Your task to perform on an android device: Add "asus zenbook" to the cart on target.com, then select checkout. Image 0: 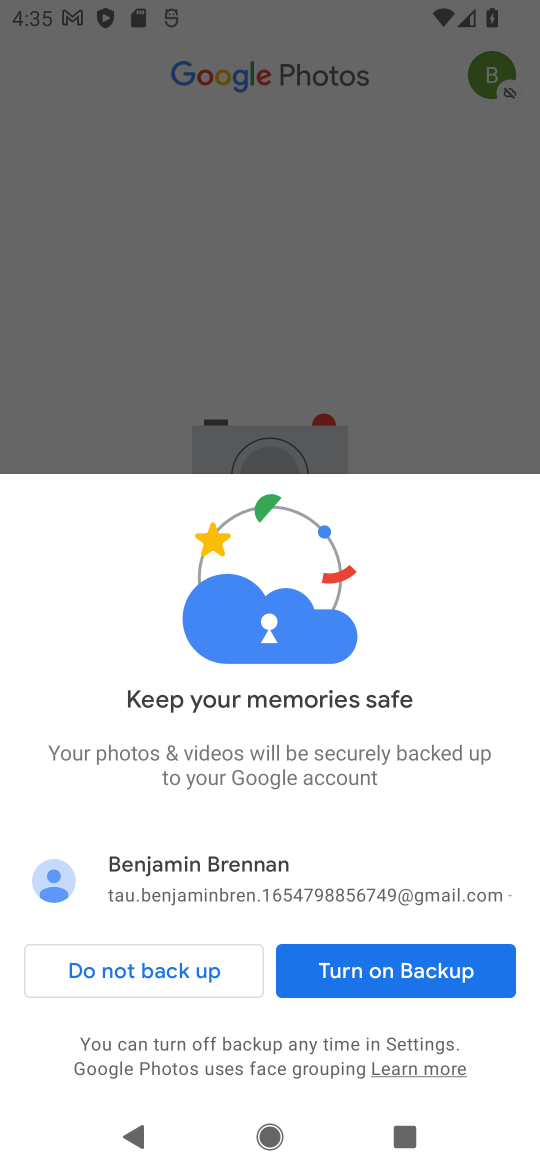
Step 0: press home button
Your task to perform on an android device: Add "asus zenbook" to the cart on target.com, then select checkout. Image 1: 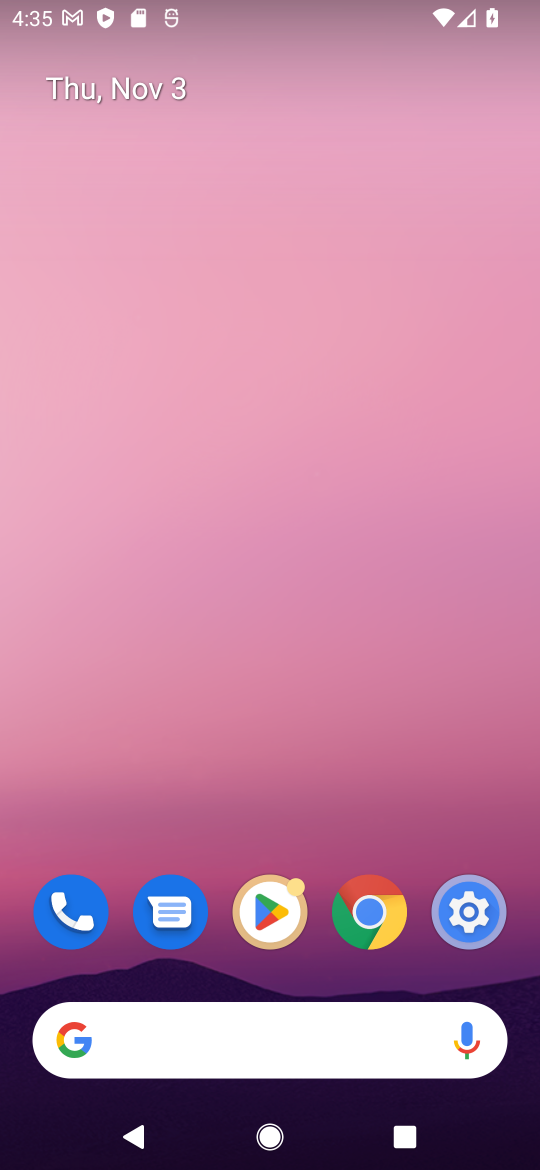
Step 1: click (375, 920)
Your task to perform on an android device: Add "asus zenbook" to the cart on target.com, then select checkout. Image 2: 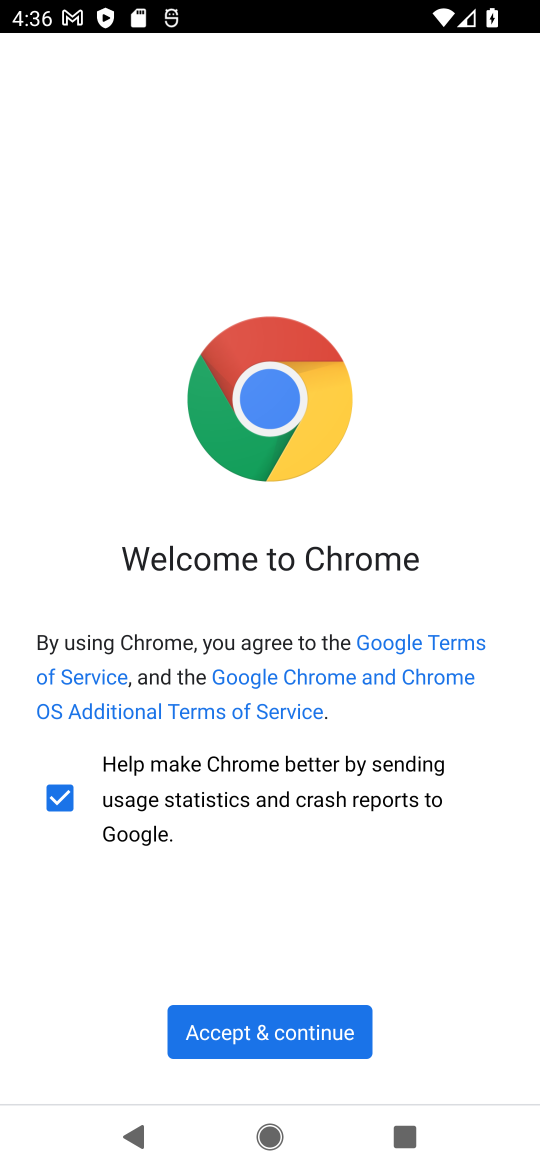
Step 2: click (213, 1037)
Your task to perform on an android device: Add "asus zenbook" to the cart on target.com, then select checkout. Image 3: 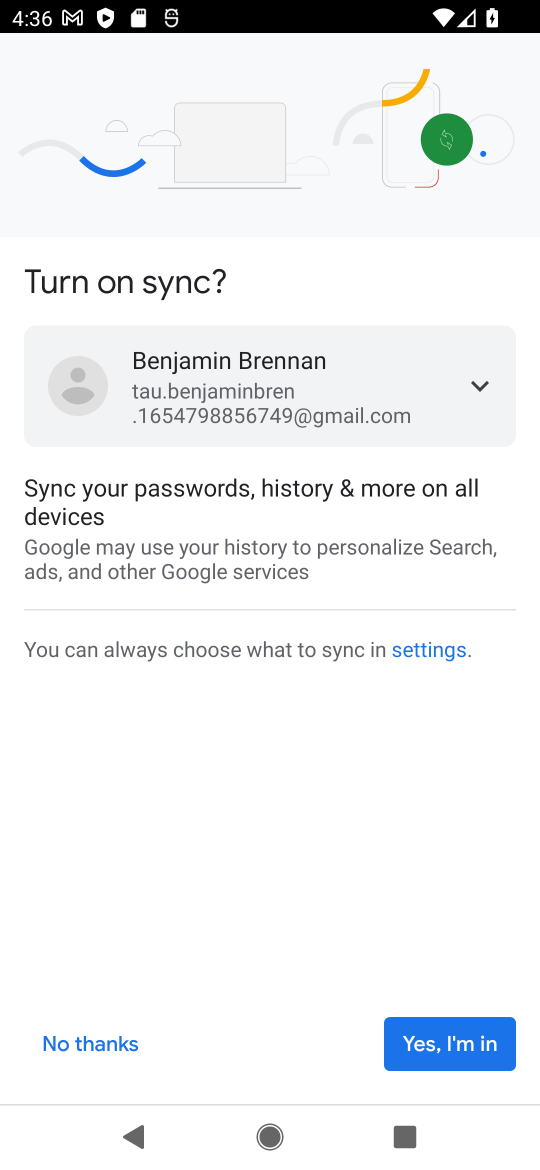
Step 3: click (431, 1044)
Your task to perform on an android device: Add "asus zenbook" to the cart on target.com, then select checkout. Image 4: 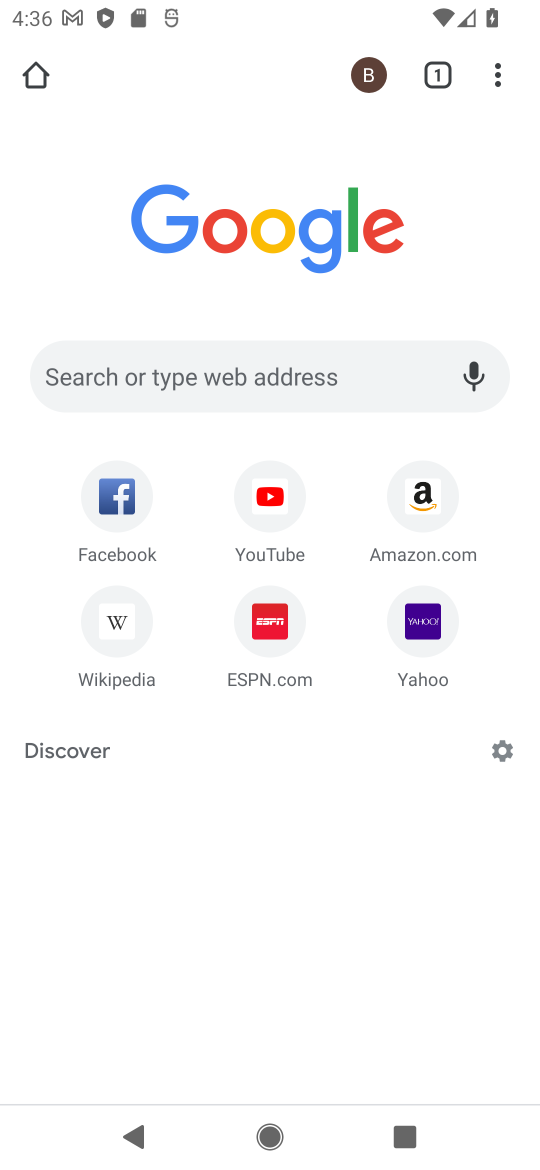
Step 4: click (188, 380)
Your task to perform on an android device: Add "asus zenbook" to the cart on target.com, then select checkout. Image 5: 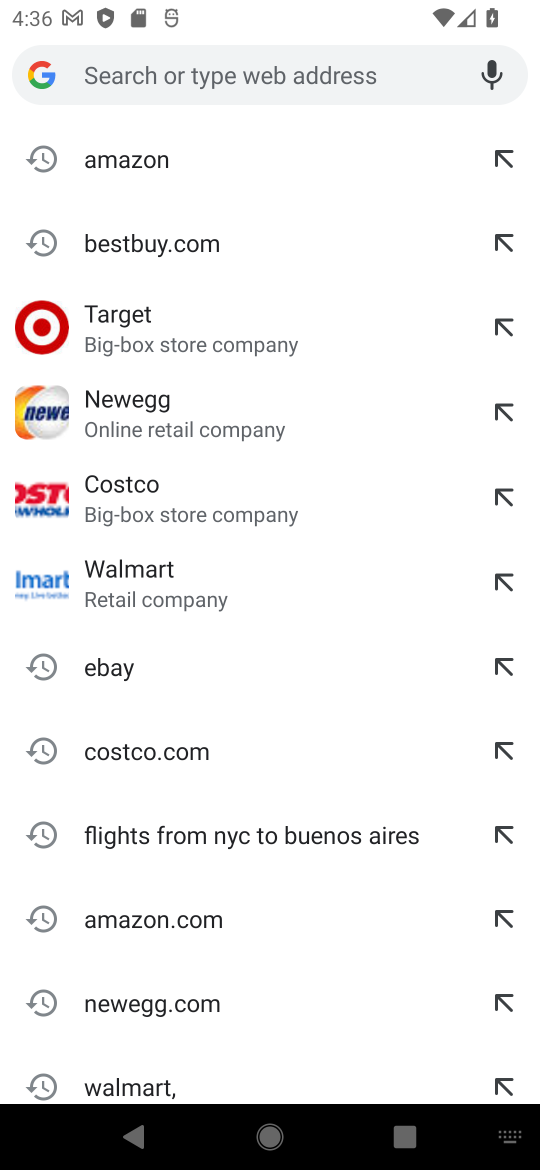
Step 5: type "target"
Your task to perform on an android device: Add "asus zenbook" to the cart on target.com, then select checkout. Image 6: 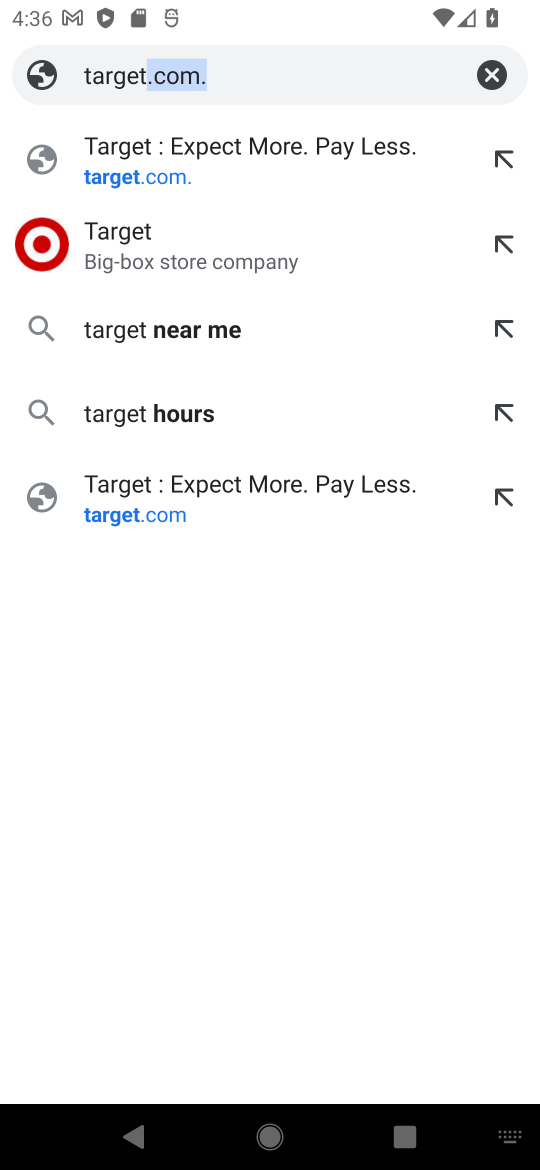
Step 6: click (146, 179)
Your task to perform on an android device: Add "asus zenbook" to the cart on target.com, then select checkout. Image 7: 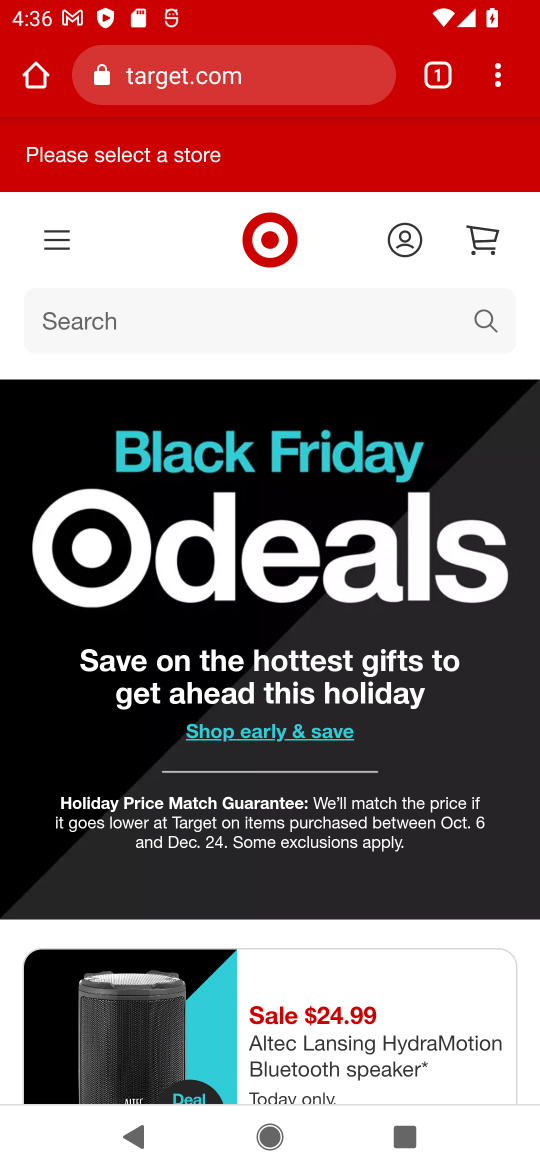
Step 7: click (486, 316)
Your task to perform on an android device: Add "asus zenbook" to the cart on target.com, then select checkout. Image 8: 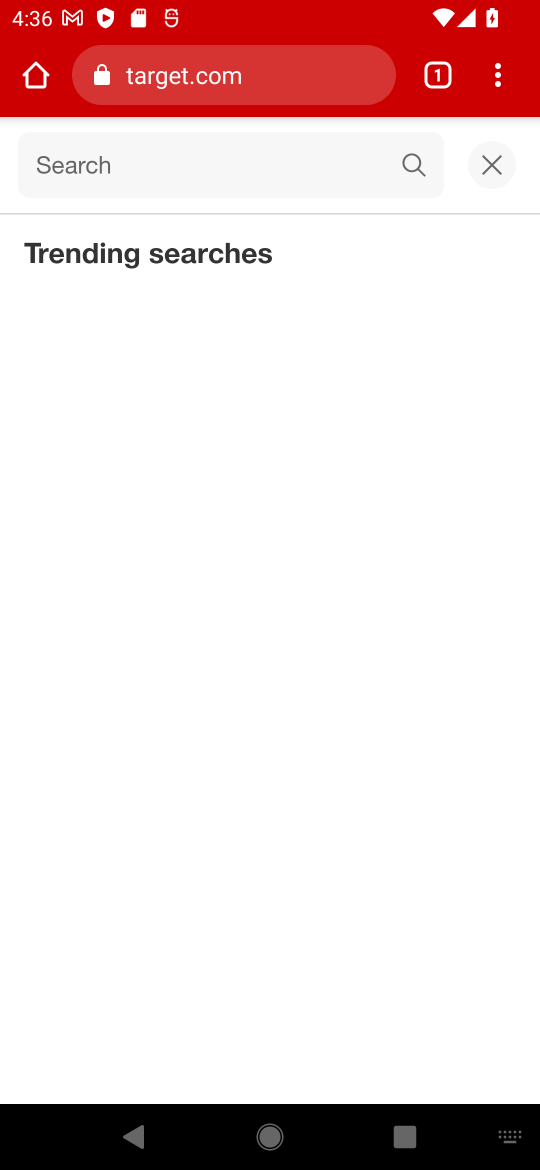
Step 8: click (115, 172)
Your task to perform on an android device: Add "asus zenbook" to the cart on target.com, then select checkout. Image 9: 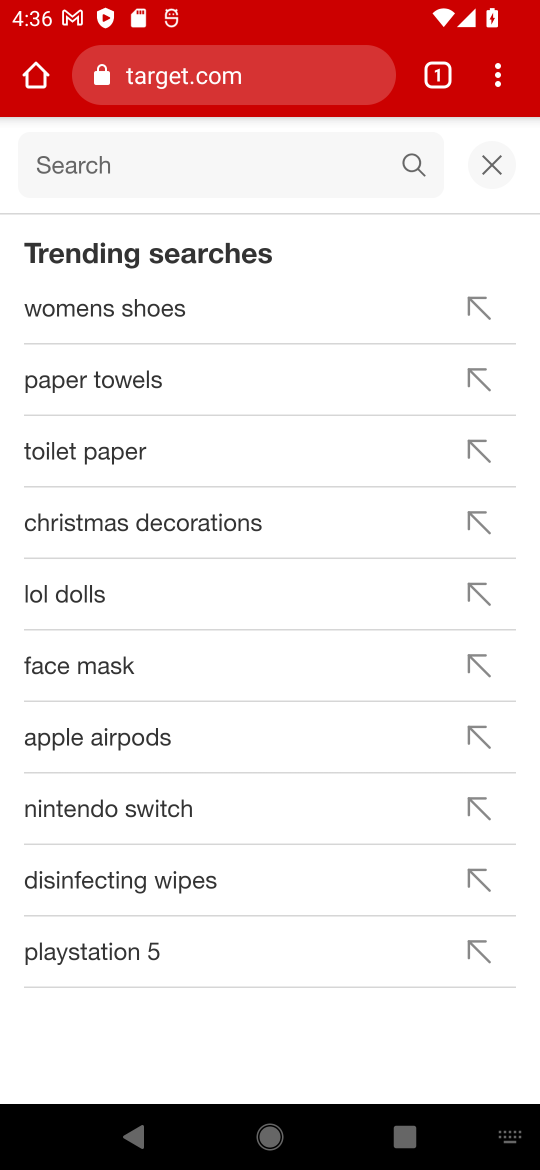
Step 9: type "asus zenbook"
Your task to perform on an android device: Add "asus zenbook" to the cart on target.com, then select checkout. Image 10: 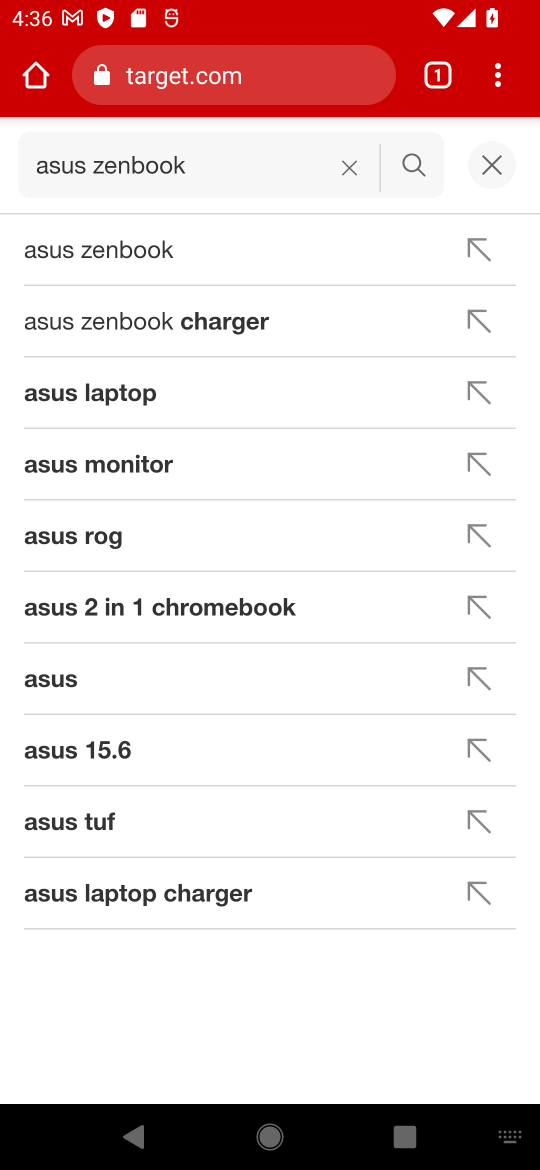
Step 10: click (81, 257)
Your task to perform on an android device: Add "asus zenbook" to the cart on target.com, then select checkout. Image 11: 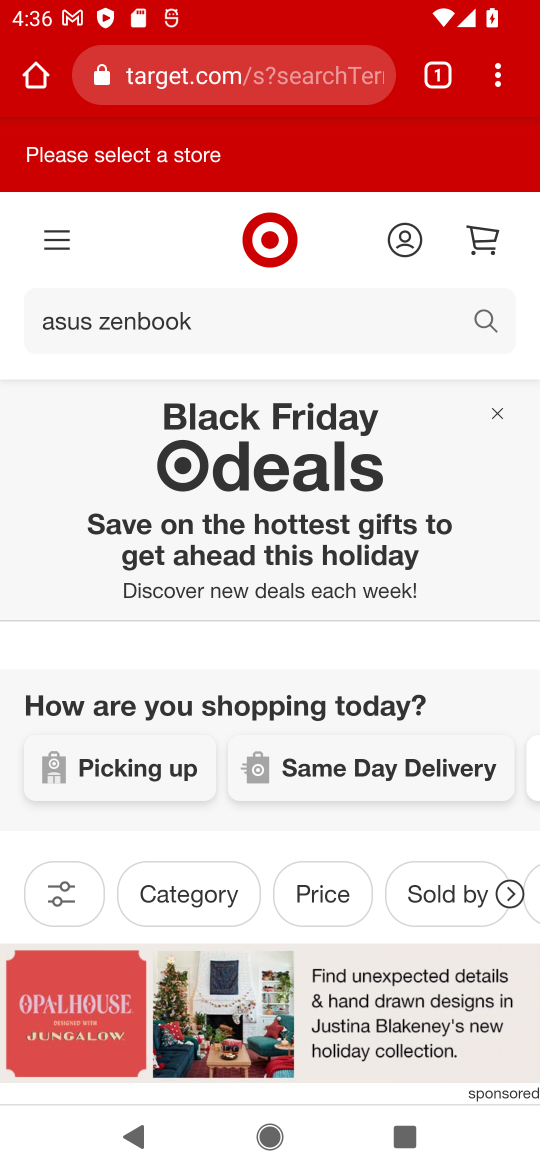
Step 11: drag from (298, 892) to (387, 279)
Your task to perform on an android device: Add "asus zenbook" to the cart on target.com, then select checkout. Image 12: 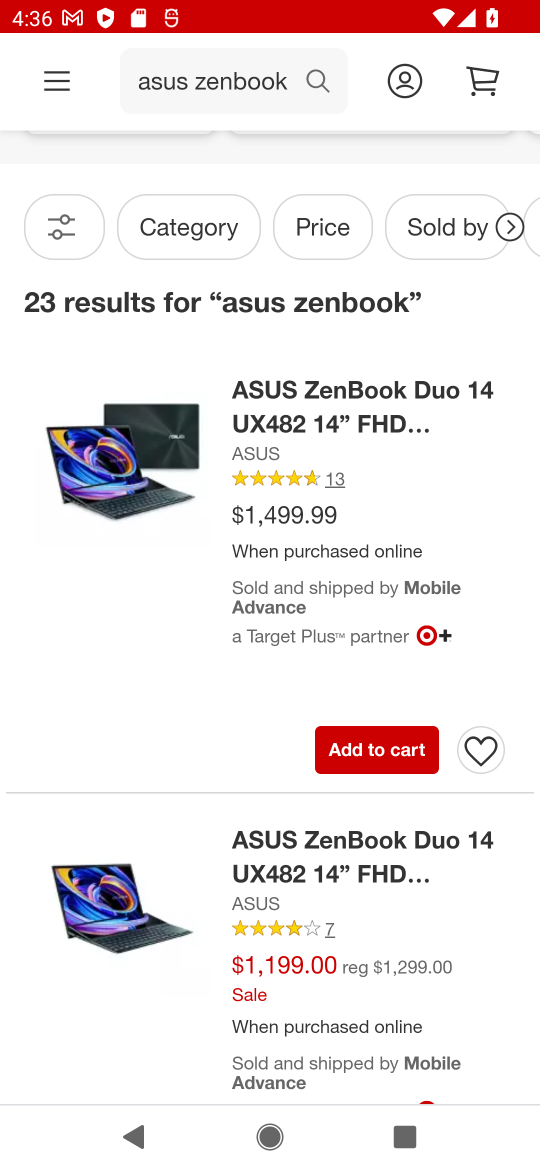
Step 12: click (362, 750)
Your task to perform on an android device: Add "asus zenbook" to the cart on target.com, then select checkout. Image 13: 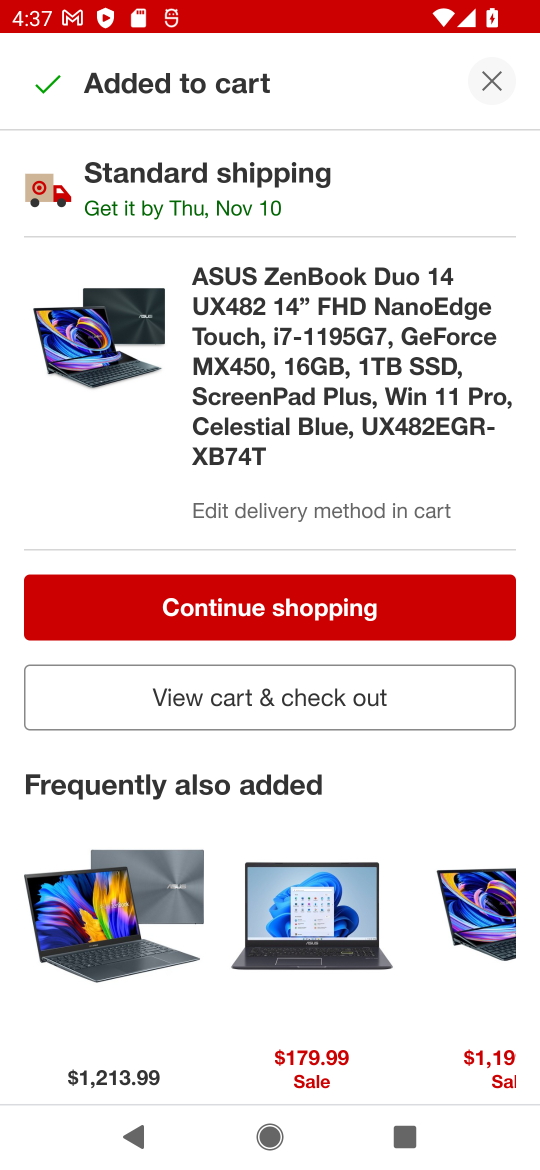
Step 13: click (294, 694)
Your task to perform on an android device: Add "asus zenbook" to the cart on target.com, then select checkout. Image 14: 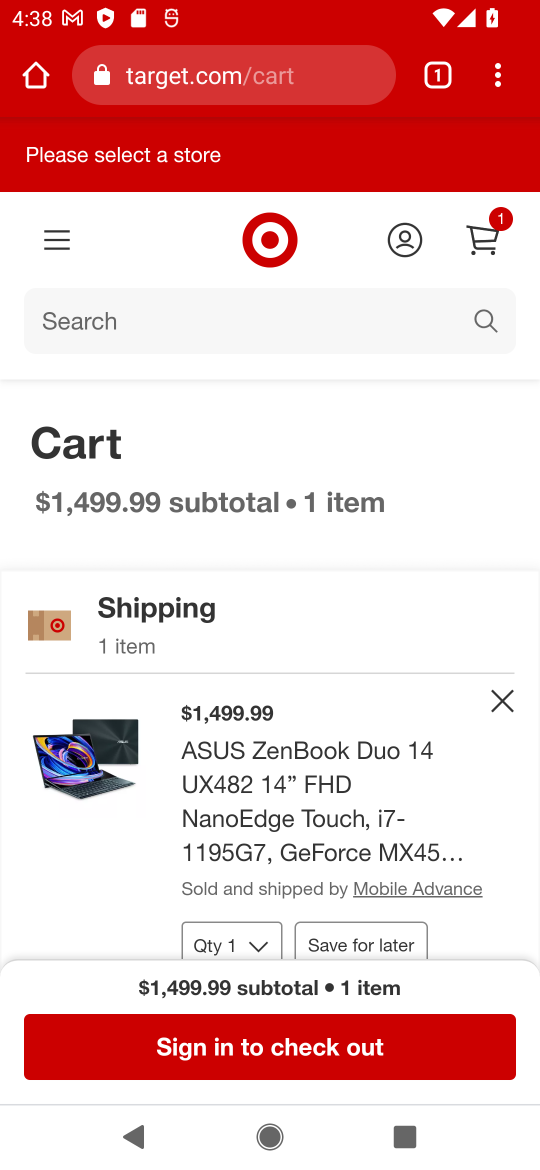
Step 14: task complete